Your task to perform on an android device: turn off javascript in the chrome app Image 0: 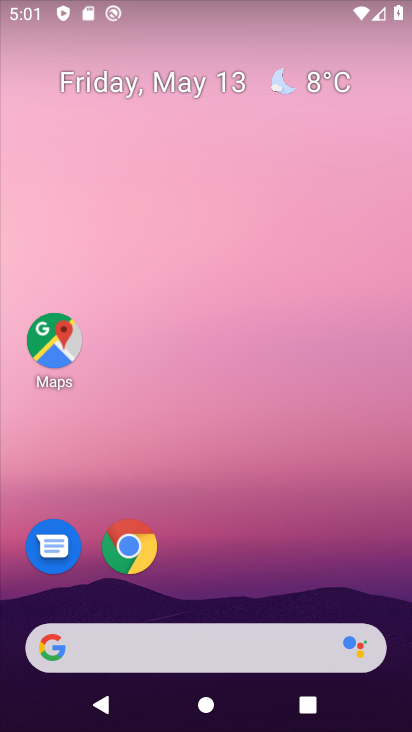
Step 0: click (131, 548)
Your task to perform on an android device: turn off javascript in the chrome app Image 1: 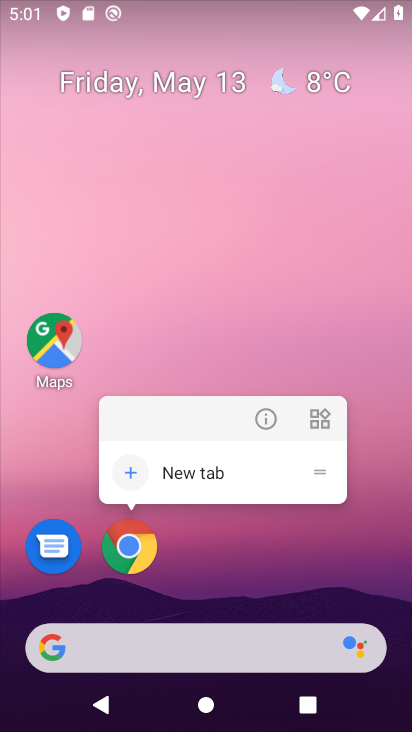
Step 1: click (131, 552)
Your task to perform on an android device: turn off javascript in the chrome app Image 2: 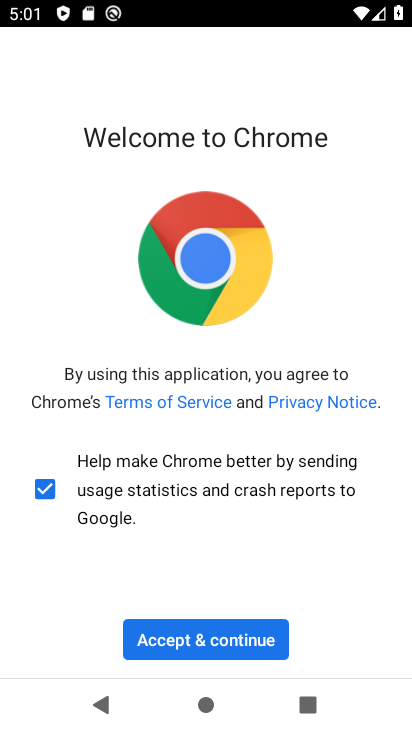
Step 2: click (223, 641)
Your task to perform on an android device: turn off javascript in the chrome app Image 3: 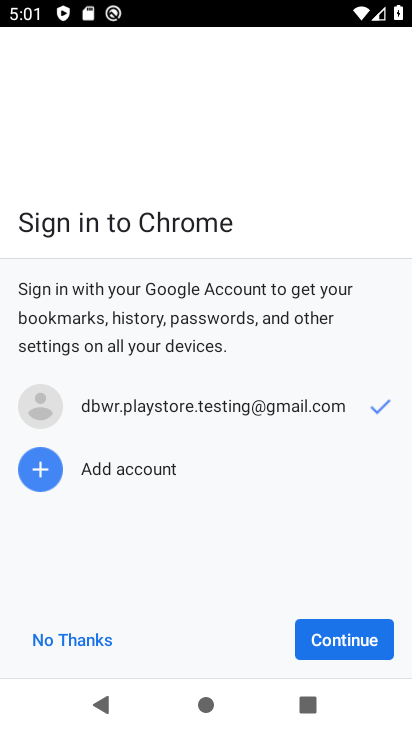
Step 3: click (343, 639)
Your task to perform on an android device: turn off javascript in the chrome app Image 4: 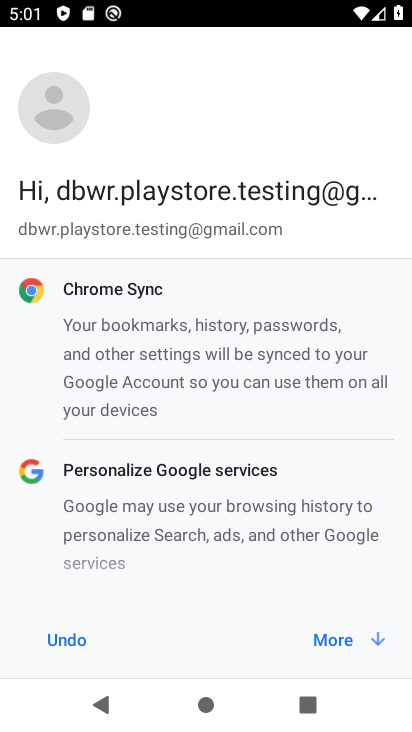
Step 4: click (344, 637)
Your task to perform on an android device: turn off javascript in the chrome app Image 5: 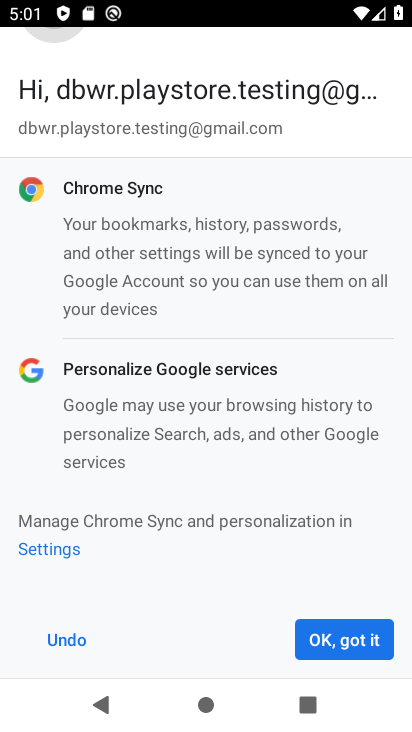
Step 5: click (344, 637)
Your task to perform on an android device: turn off javascript in the chrome app Image 6: 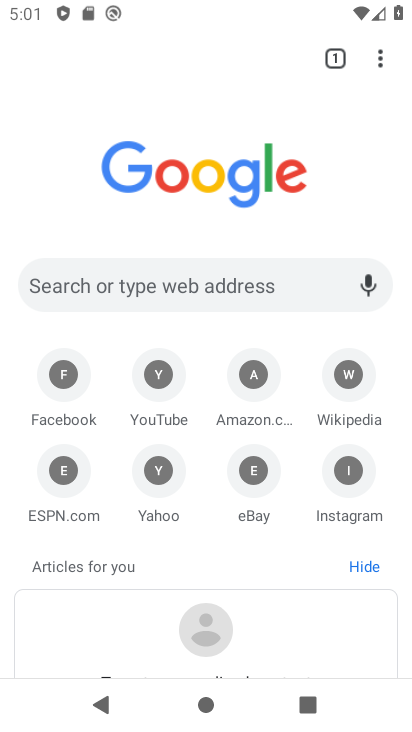
Step 6: drag from (383, 71) to (268, 511)
Your task to perform on an android device: turn off javascript in the chrome app Image 7: 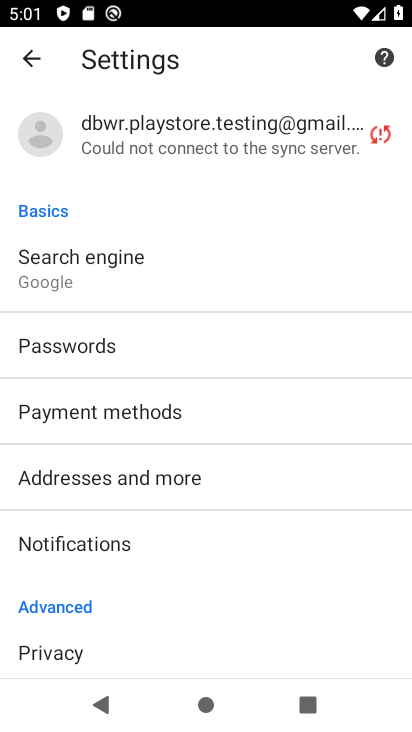
Step 7: drag from (170, 596) to (289, 250)
Your task to perform on an android device: turn off javascript in the chrome app Image 8: 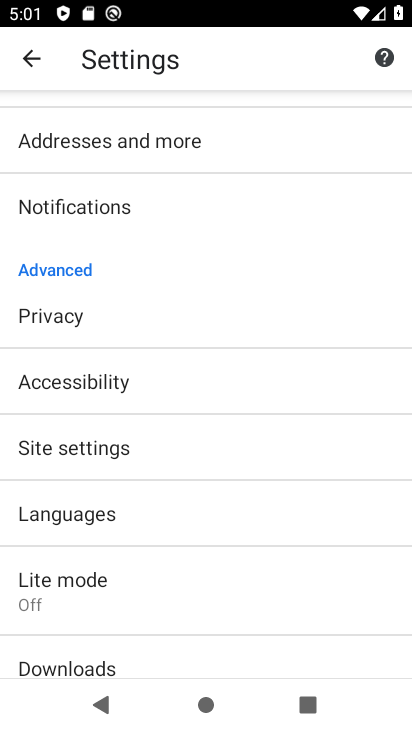
Step 8: click (166, 445)
Your task to perform on an android device: turn off javascript in the chrome app Image 9: 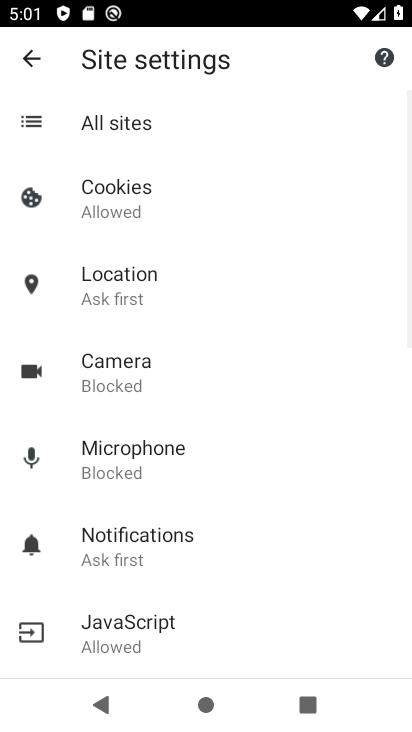
Step 9: click (143, 625)
Your task to perform on an android device: turn off javascript in the chrome app Image 10: 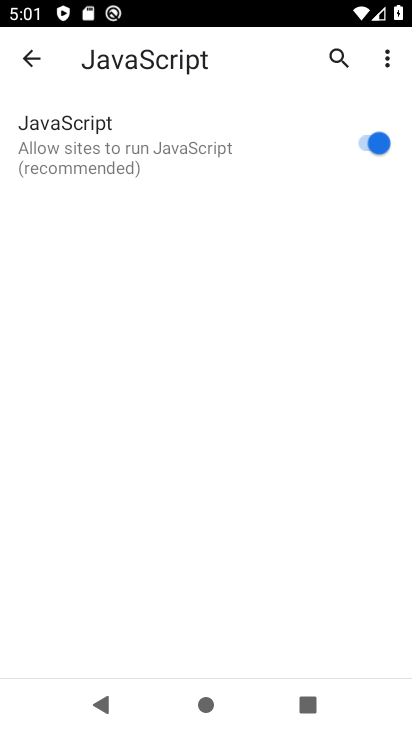
Step 10: click (368, 143)
Your task to perform on an android device: turn off javascript in the chrome app Image 11: 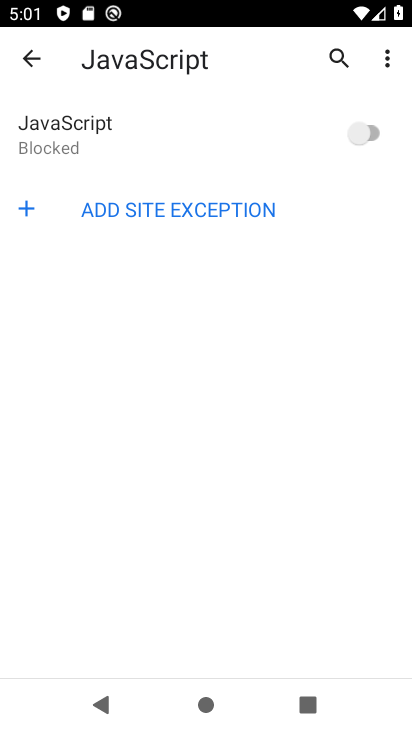
Step 11: task complete